Your task to perform on an android device: open app "Facebook Lite" Image 0: 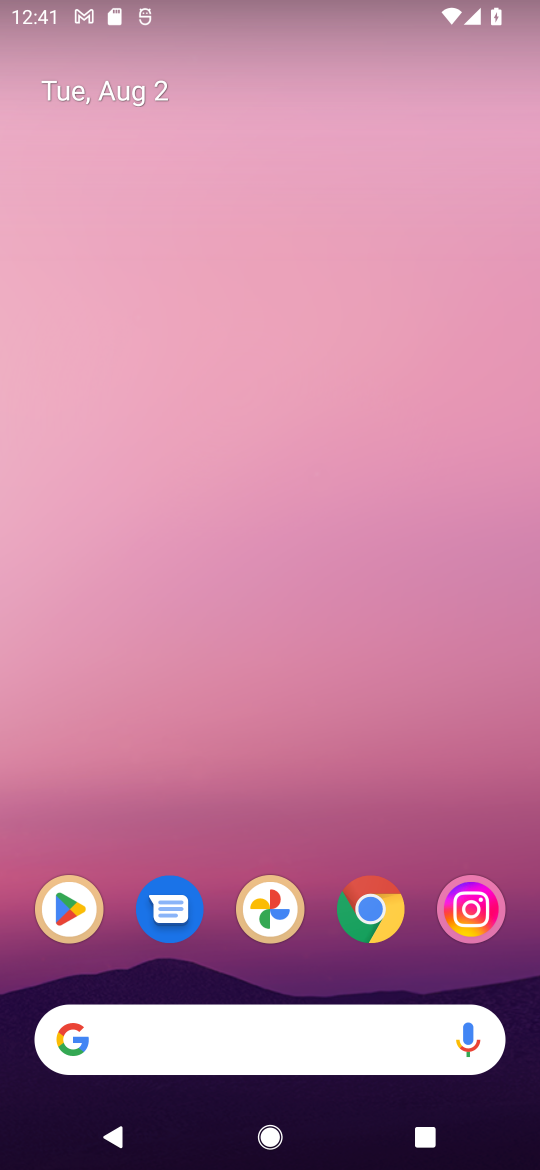
Step 0: click (58, 920)
Your task to perform on an android device: open app "Facebook Lite" Image 1: 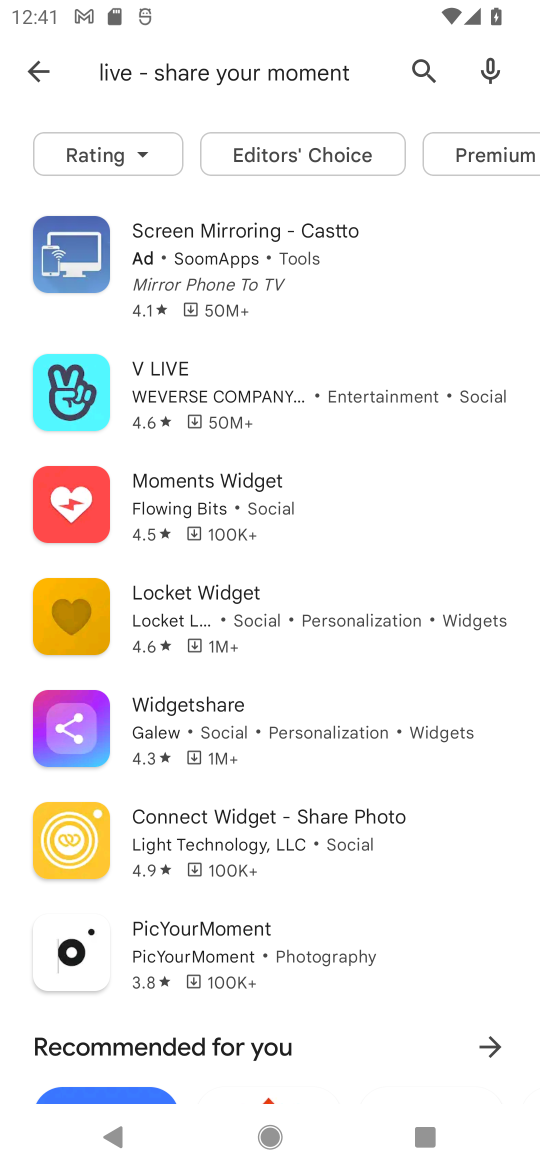
Step 1: click (426, 67)
Your task to perform on an android device: open app "Facebook Lite" Image 2: 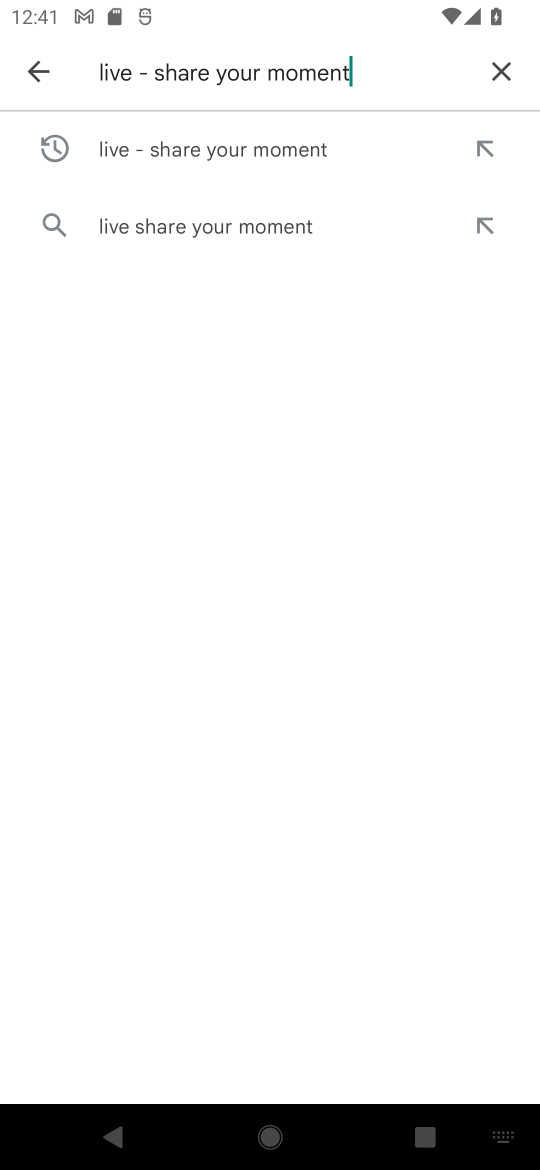
Step 2: click (508, 69)
Your task to perform on an android device: open app "Facebook Lite" Image 3: 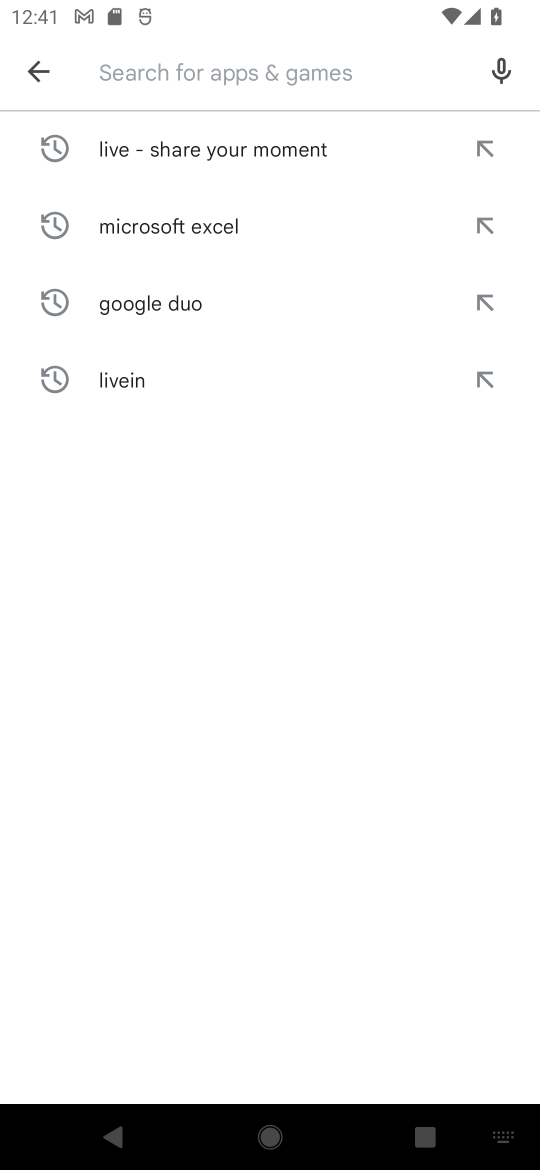
Step 3: type "Facebook Lite"
Your task to perform on an android device: open app "Facebook Lite" Image 4: 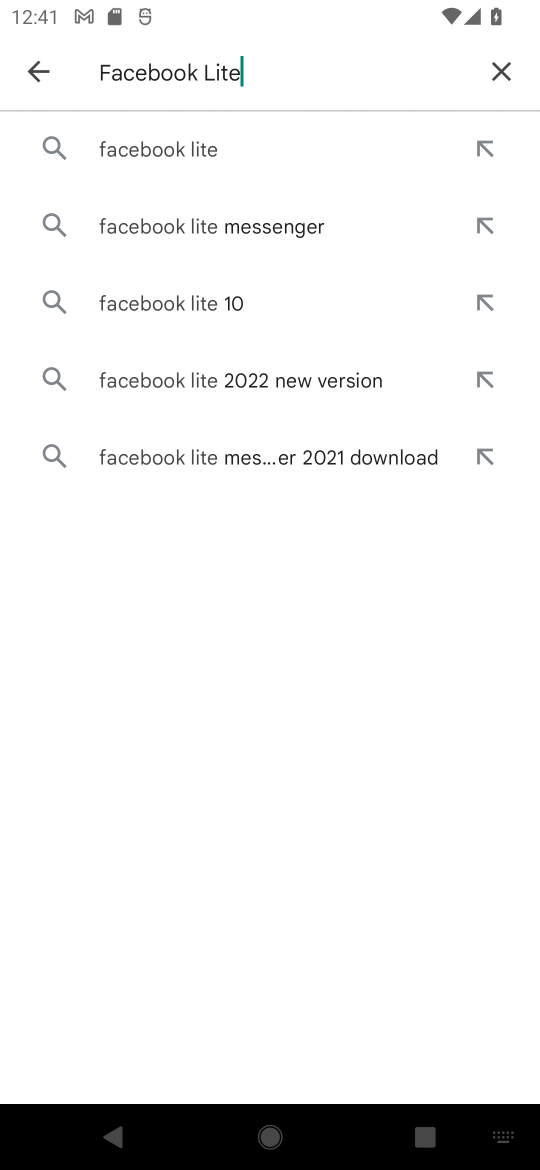
Step 4: click (148, 142)
Your task to perform on an android device: open app "Facebook Lite" Image 5: 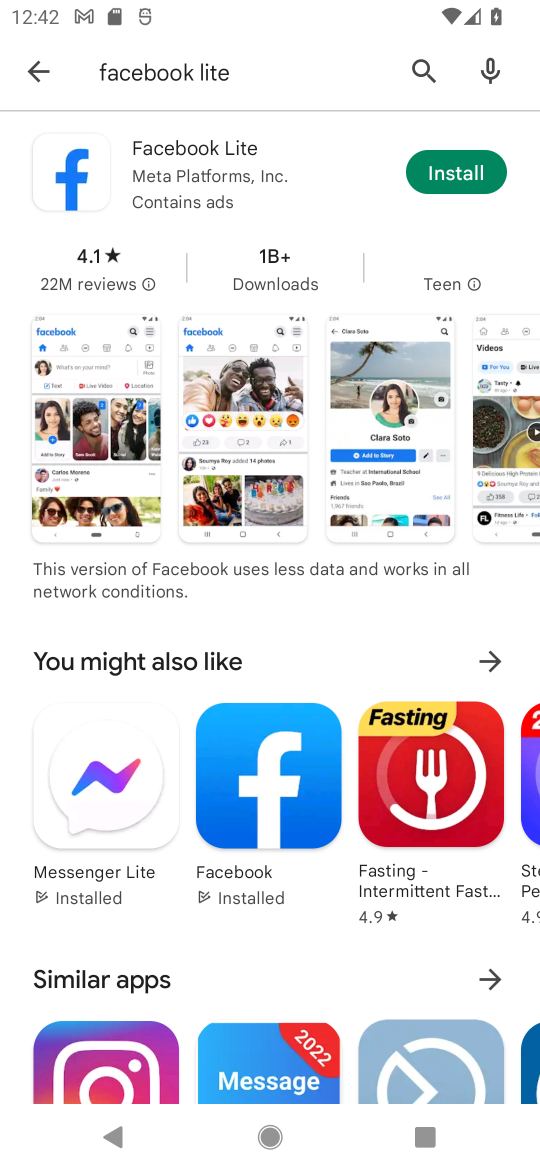
Step 5: click (453, 163)
Your task to perform on an android device: open app "Facebook Lite" Image 6: 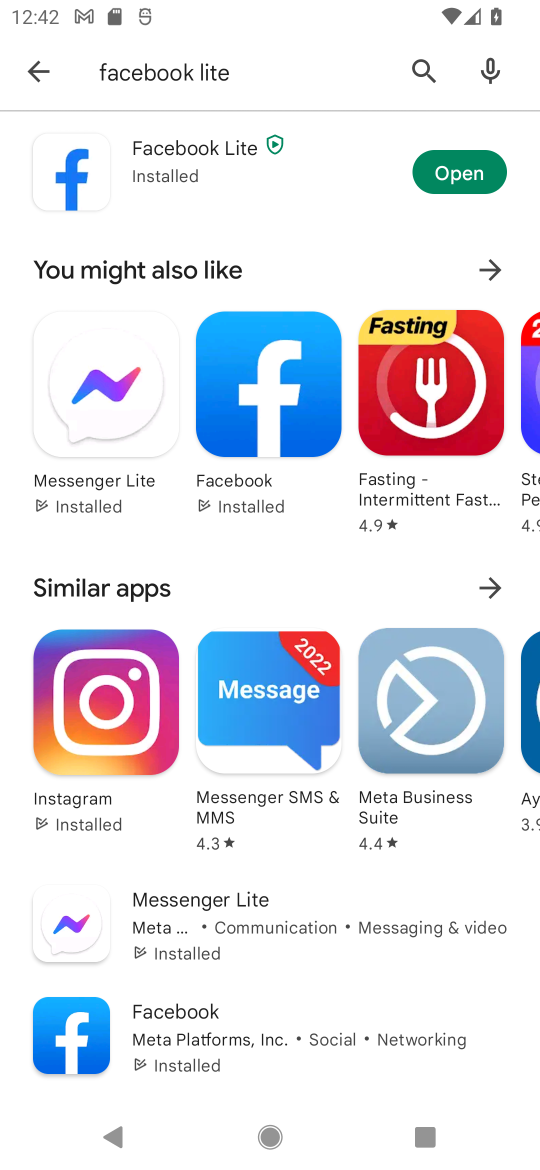
Step 6: task complete